Your task to perform on an android device: manage bookmarks in the chrome app Image 0: 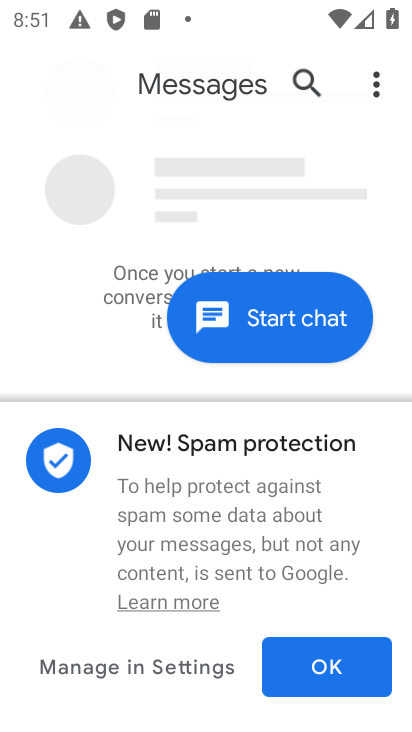
Step 0: press home button
Your task to perform on an android device: manage bookmarks in the chrome app Image 1: 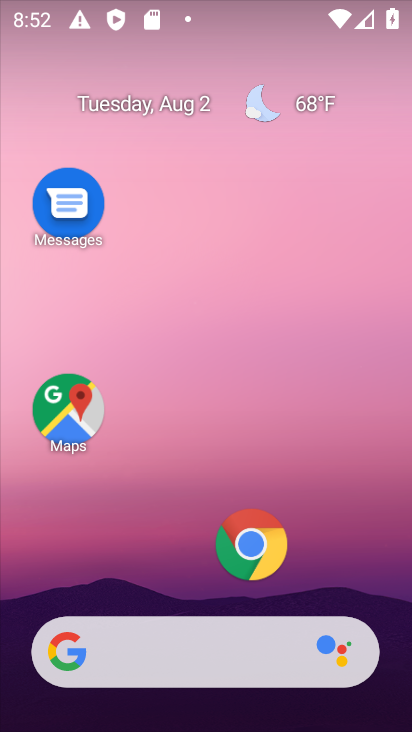
Step 1: drag from (147, 617) to (135, 231)
Your task to perform on an android device: manage bookmarks in the chrome app Image 2: 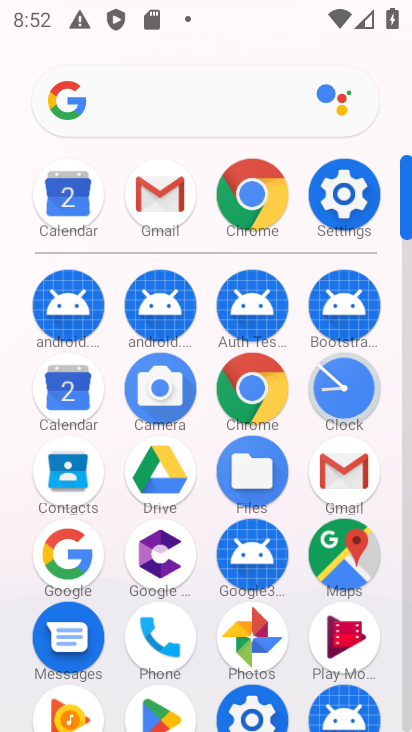
Step 2: click (262, 201)
Your task to perform on an android device: manage bookmarks in the chrome app Image 3: 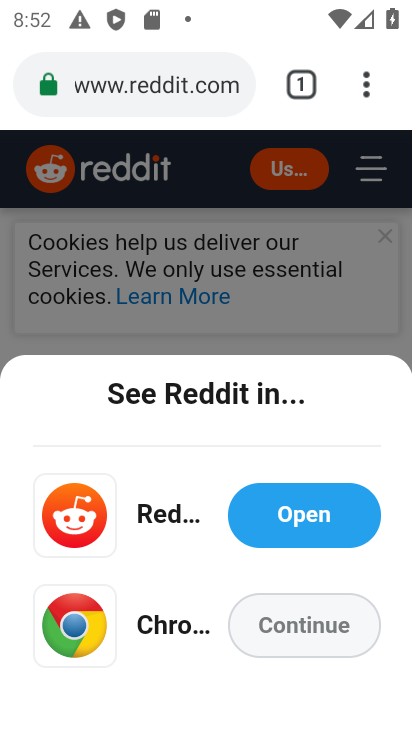
Step 3: click (369, 89)
Your task to perform on an android device: manage bookmarks in the chrome app Image 4: 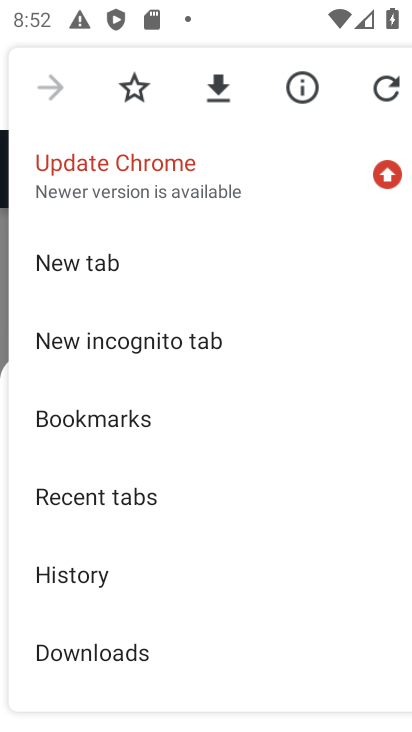
Step 4: click (87, 419)
Your task to perform on an android device: manage bookmarks in the chrome app Image 5: 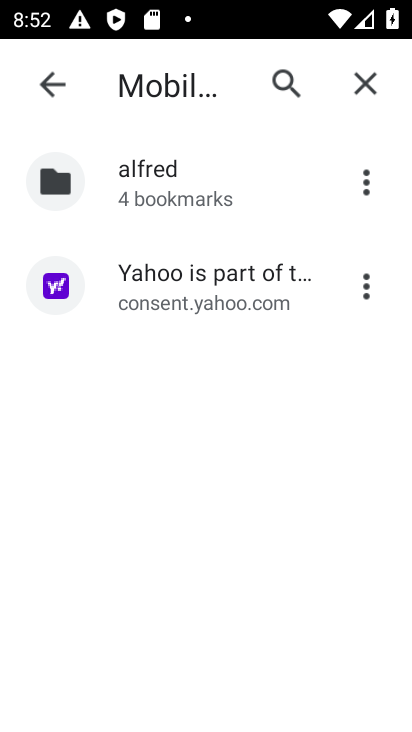
Step 5: task complete